Your task to perform on an android device: Open internet settings Image 0: 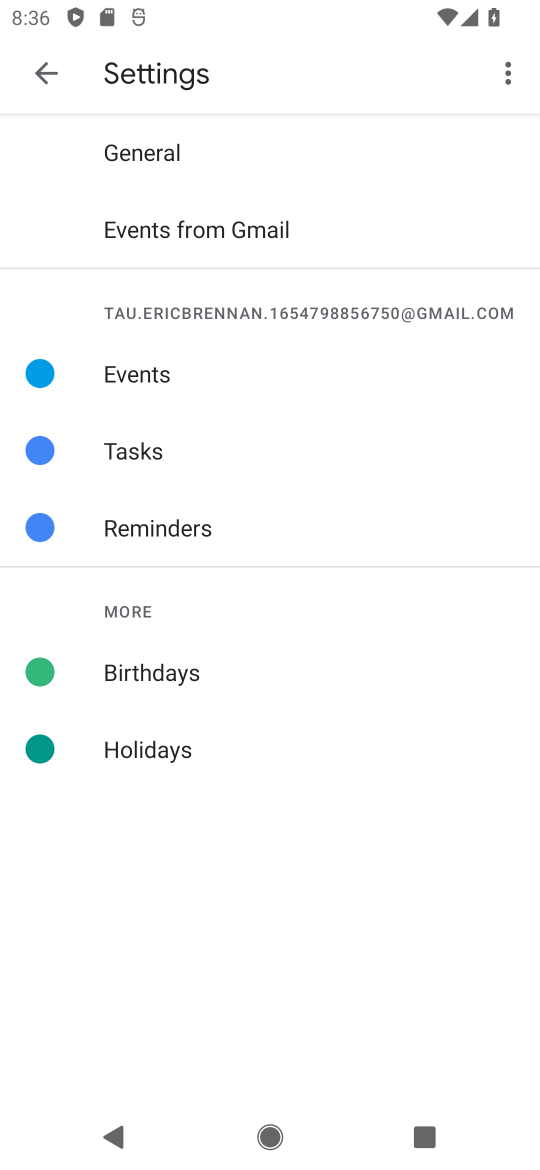
Step 0: press home button
Your task to perform on an android device: Open internet settings Image 1: 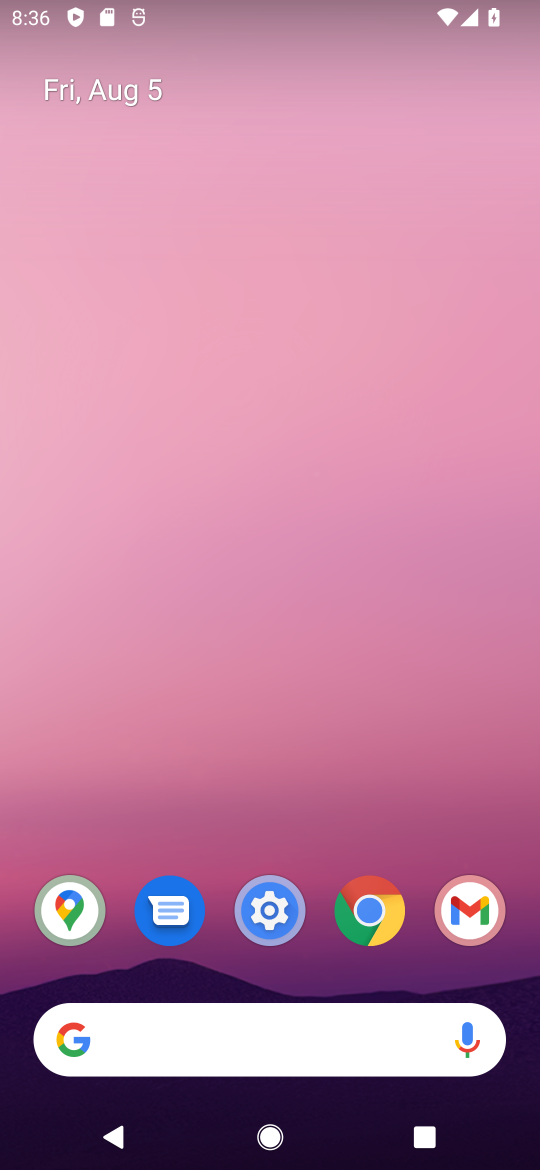
Step 1: click (275, 917)
Your task to perform on an android device: Open internet settings Image 2: 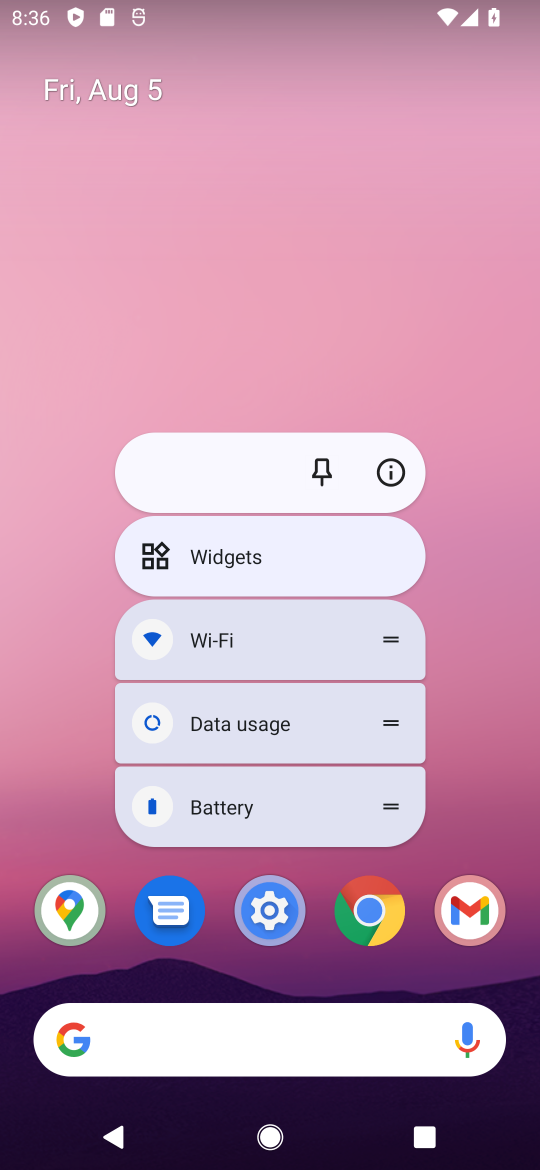
Step 2: click (247, 894)
Your task to perform on an android device: Open internet settings Image 3: 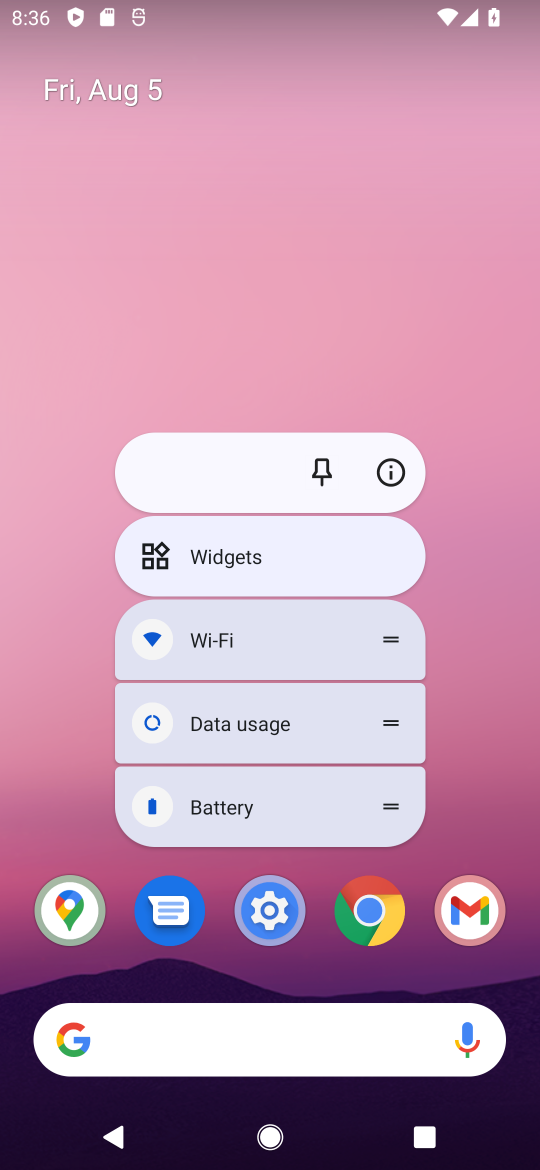
Step 3: click (270, 910)
Your task to perform on an android device: Open internet settings Image 4: 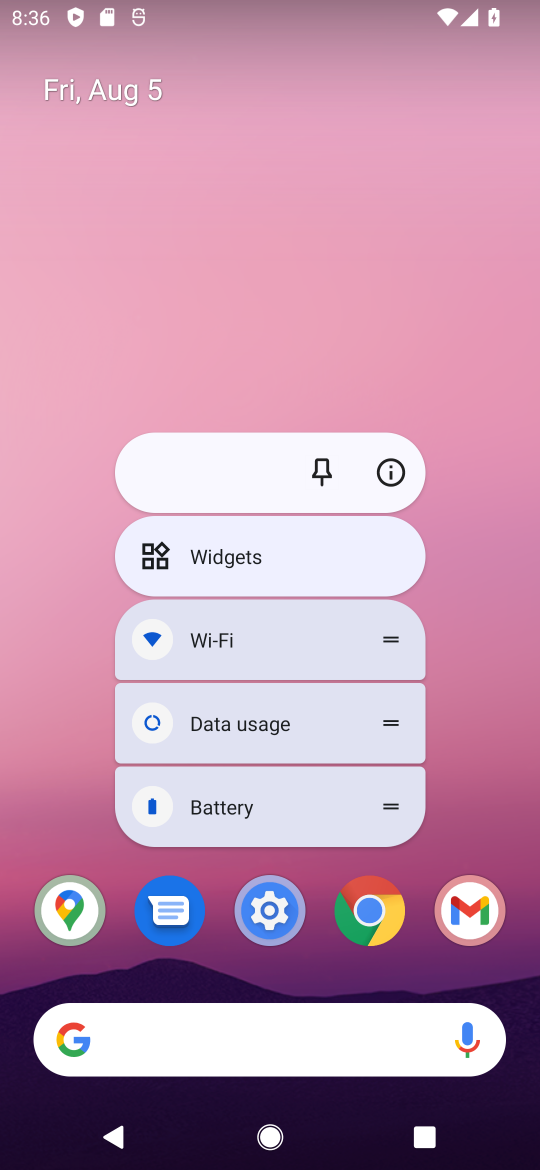
Step 4: click (270, 910)
Your task to perform on an android device: Open internet settings Image 5: 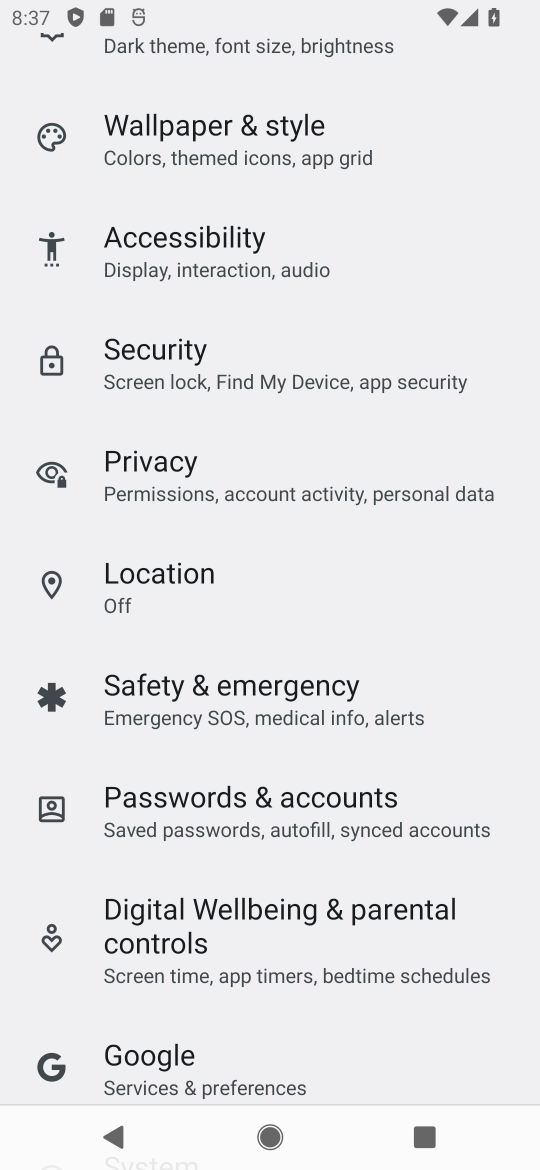
Step 5: drag from (419, 460) to (355, 917)
Your task to perform on an android device: Open internet settings Image 6: 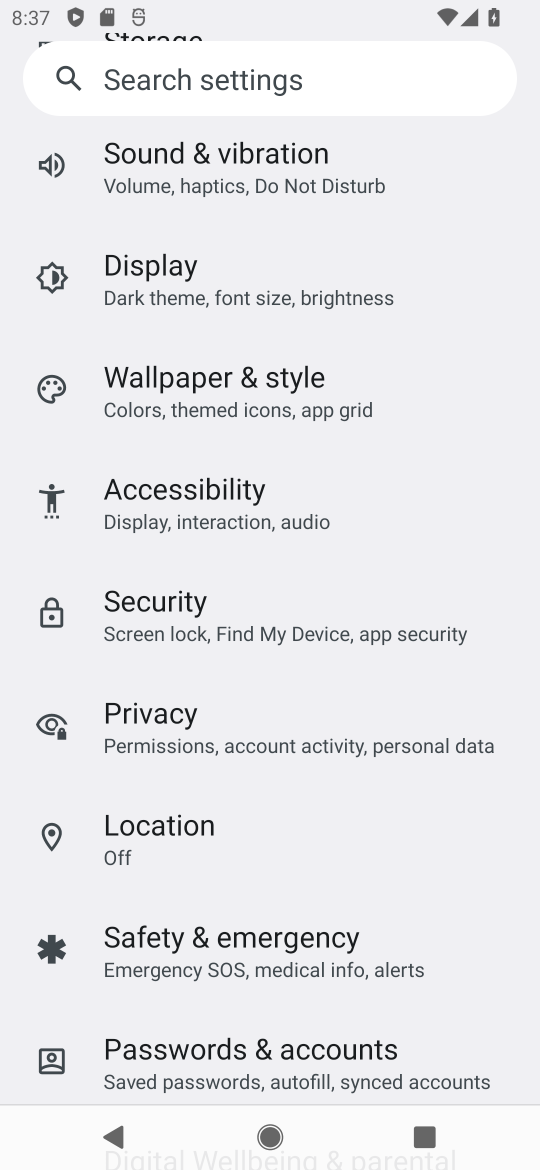
Step 6: drag from (412, 195) to (364, 931)
Your task to perform on an android device: Open internet settings Image 7: 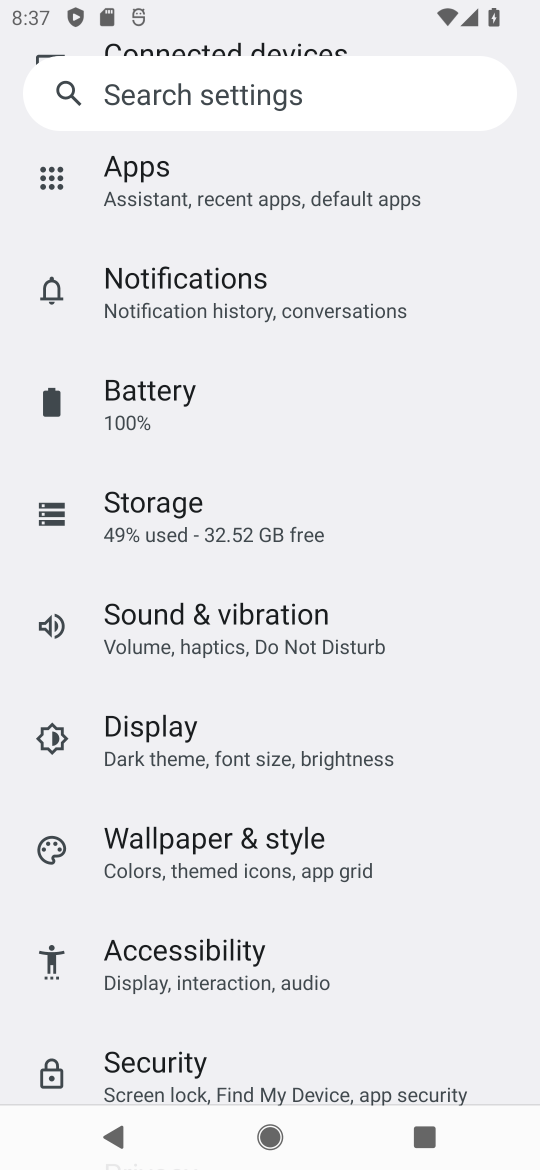
Step 7: drag from (392, 438) to (307, 993)
Your task to perform on an android device: Open internet settings Image 8: 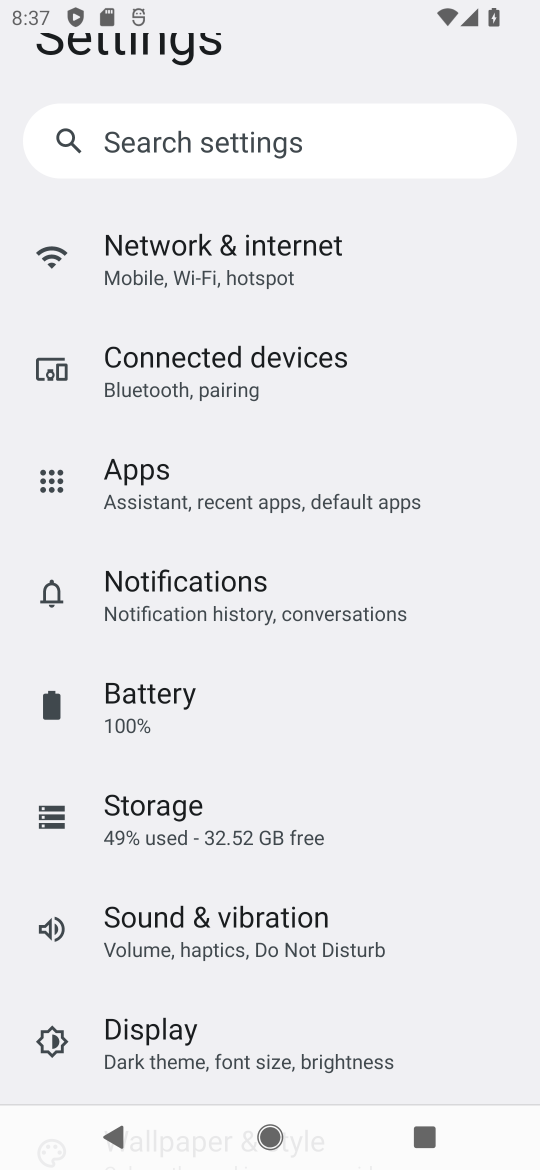
Step 8: click (271, 267)
Your task to perform on an android device: Open internet settings Image 9: 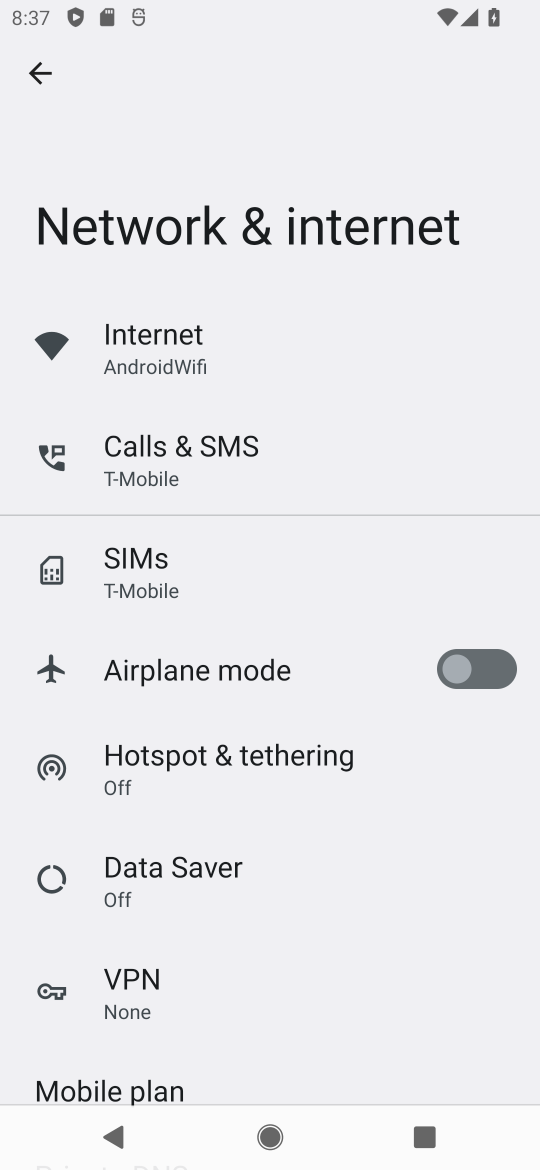
Step 9: click (157, 343)
Your task to perform on an android device: Open internet settings Image 10: 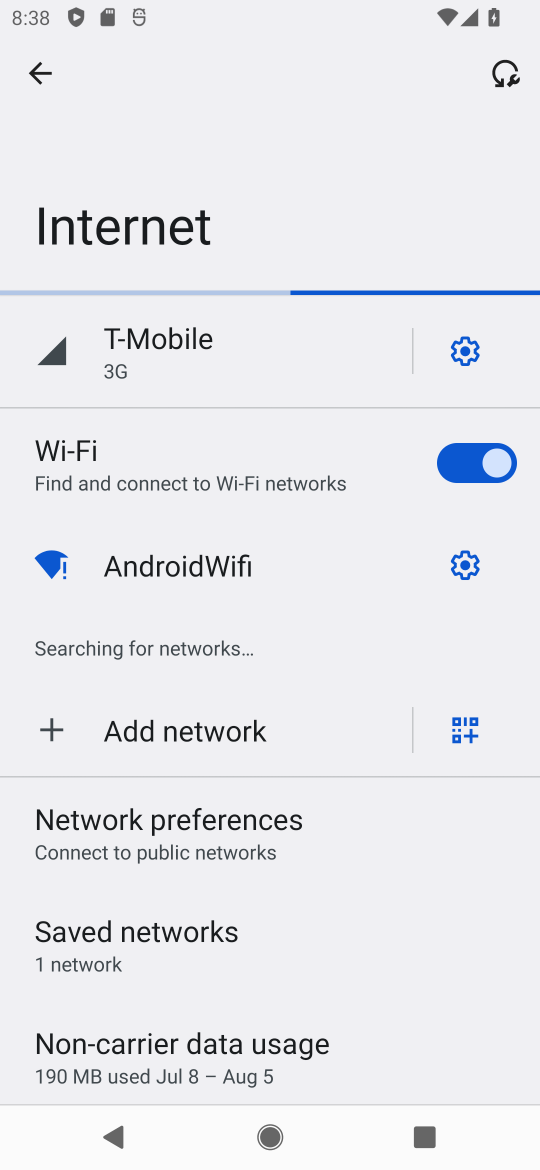
Step 10: task complete